Your task to perform on an android device: open the mobile data screen to see how much data has been used Image 0: 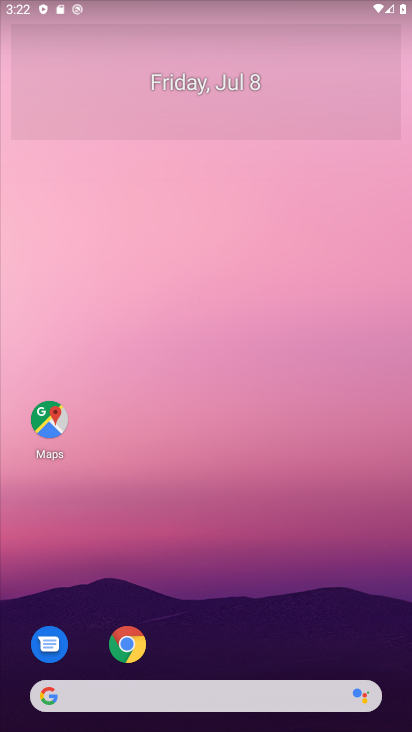
Step 0: drag from (367, 1) to (214, 461)
Your task to perform on an android device: open the mobile data screen to see how much data has been used Image 1: 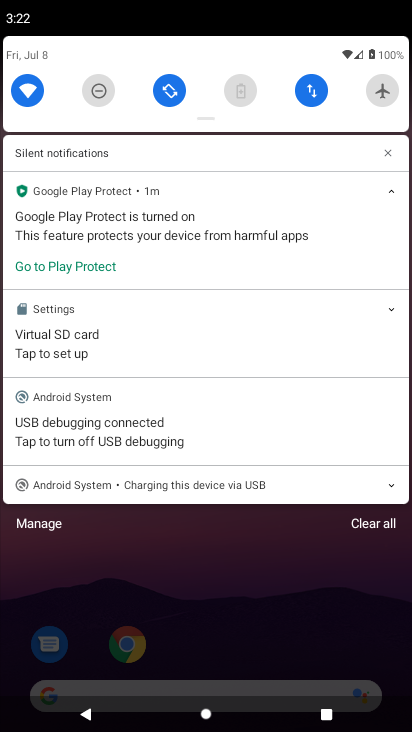
Step 1: click (308, 95)
Your task to perform on an android device: open the mobile data screen to see how much data has been used Image 2: 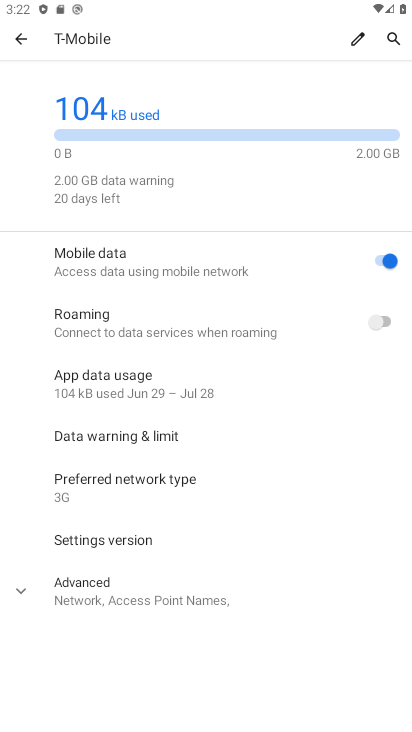
Step 2: task complete